Your task to perform on an android device: turn notification dots off Image 0: 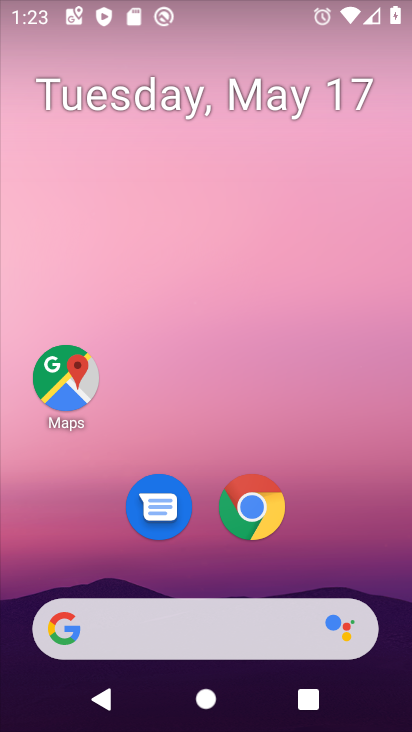
Step 0: drag from (316, 594) to (309, 294)
Your task to perform on an android device: turn notification dots off Image 1: 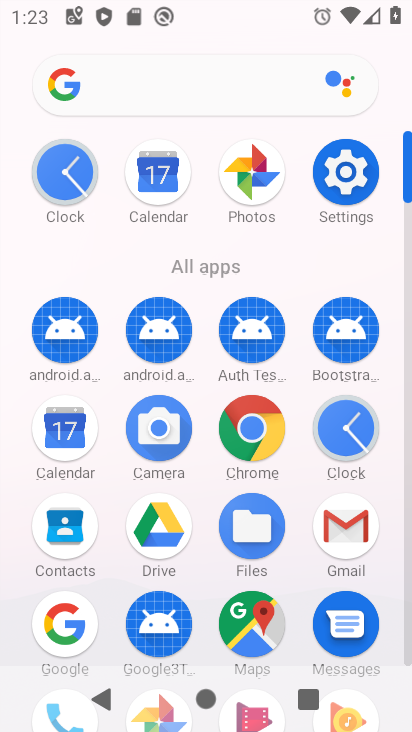
Step 1: click (356, 164)
Your task to perform on an android device: turn notification dots off Image 2: 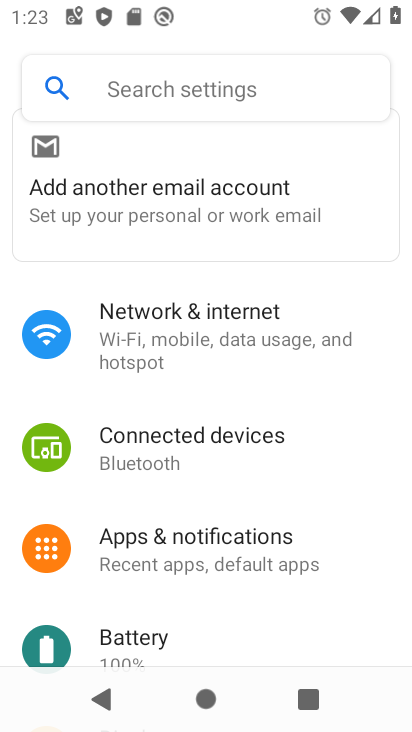
Step 2: click (226, 81)
Your task to perform on an android device: turn notification dots off Image 3: 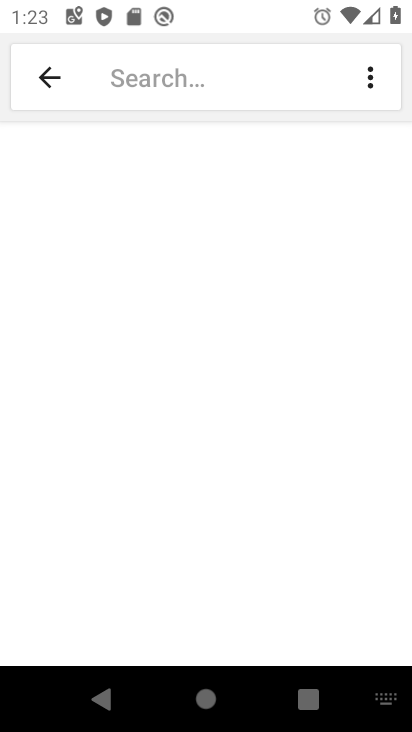
Step 3: click (151, 71)
Your task to perform on an android device: turn notification dots off Image 4: 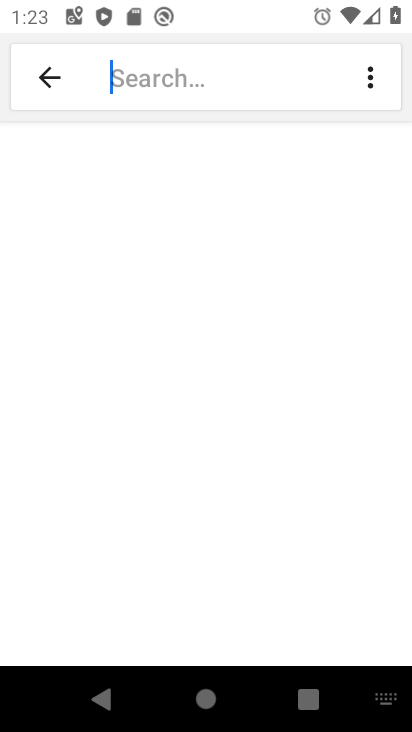
Step 4: type "notification dots"
Your task to perform on an android device: turn notification dots off Image 5: 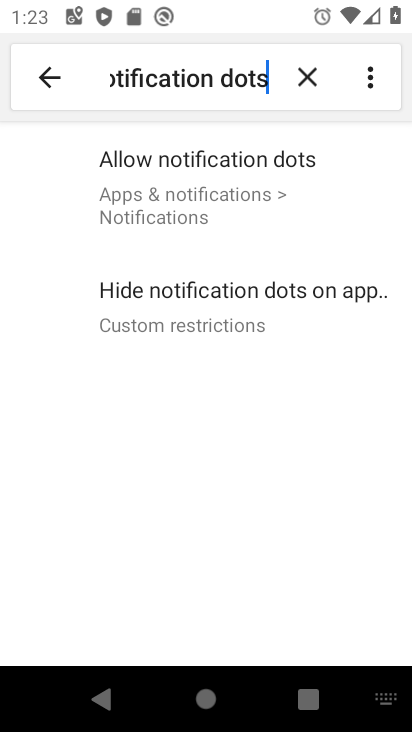
Step 5: click (184, 165)
Your task to perform on an android device: turn notification dots off Image 6: 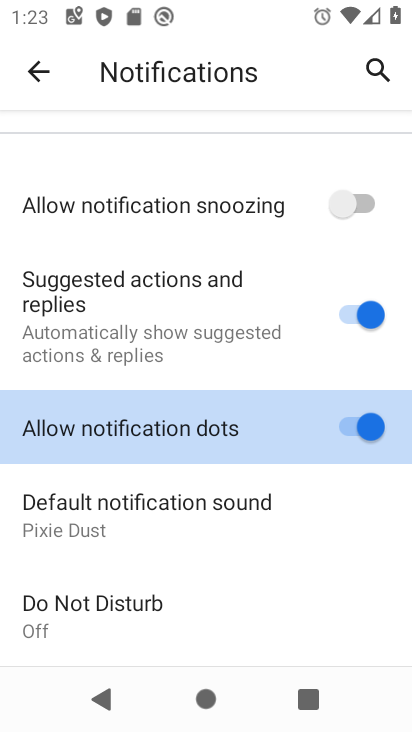
Step 6: click (369, 420)
Your task to perform on an android device: turn notification dots off Image 7: 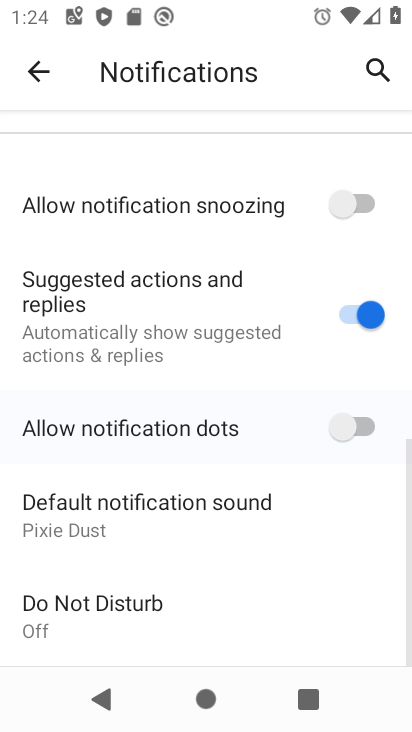
Step 7: task complete